Your task to perform on an android device: find photos in the google photos app Image 0: 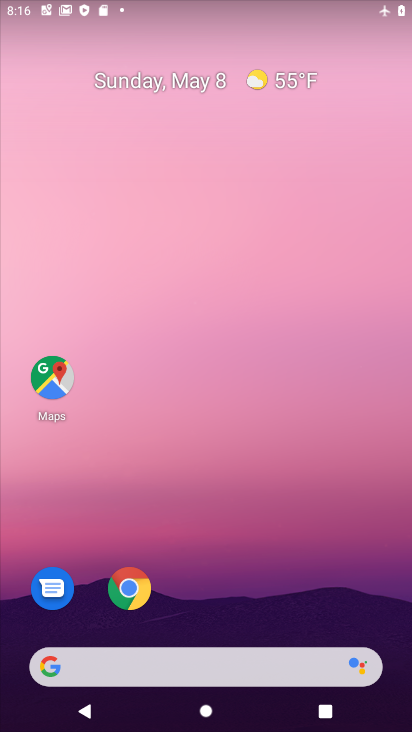
Step 0: drag from (293, 617) to (248, 34)
Your task to perform on an android device: find photos in the google photos app Image 1: 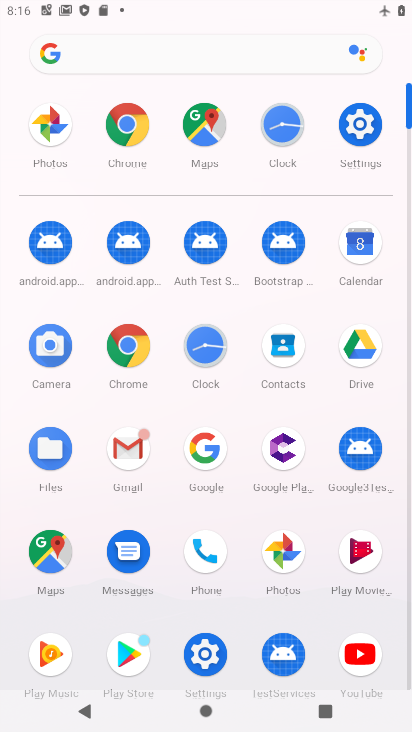
Step 1: click (288, 558)
Your task to perform on an android device: find photos in the google photos app Image 2: 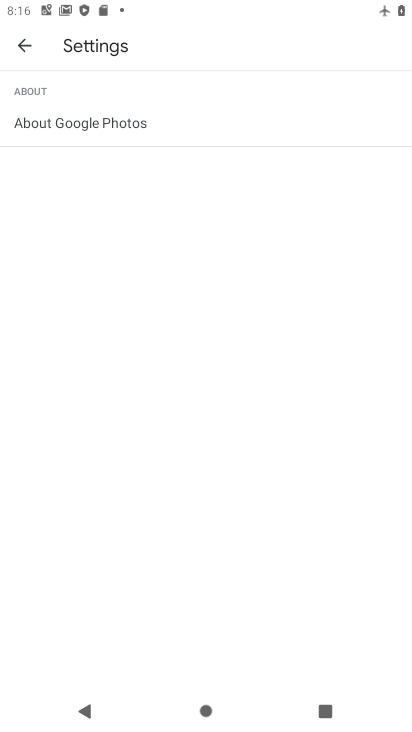
Step 2: press back button
Your task to perform on an android device: find photos in the google photos app Image 3: 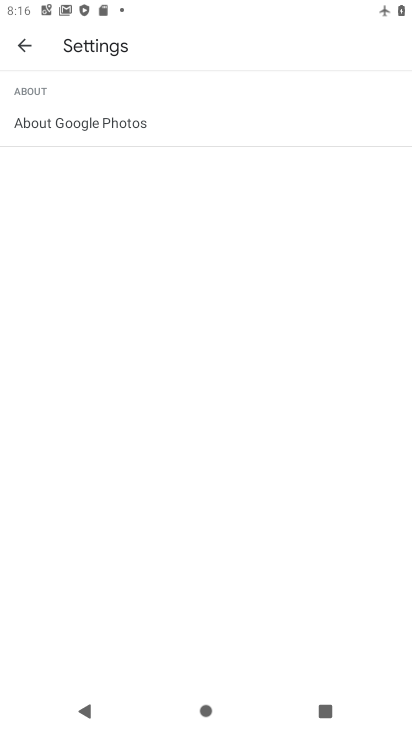
Step 3: press back button
Your task to perform on an android device: find photos in the google photos app Image 4: 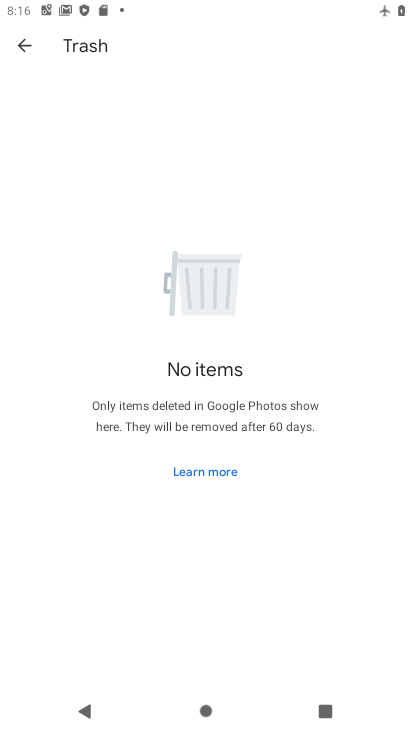
Step 4: press back button
Your task to perform on an android device: find photos in the google photos app Image 5: 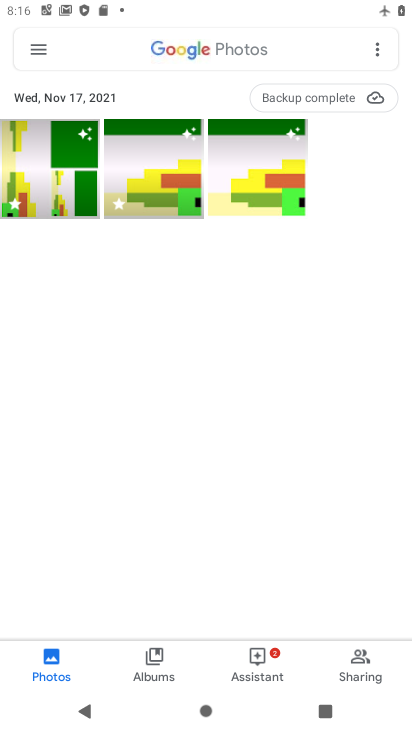
Step 5: click (33, 53)
Your task to perform on an android device: find photos in the google photos app Image 6: 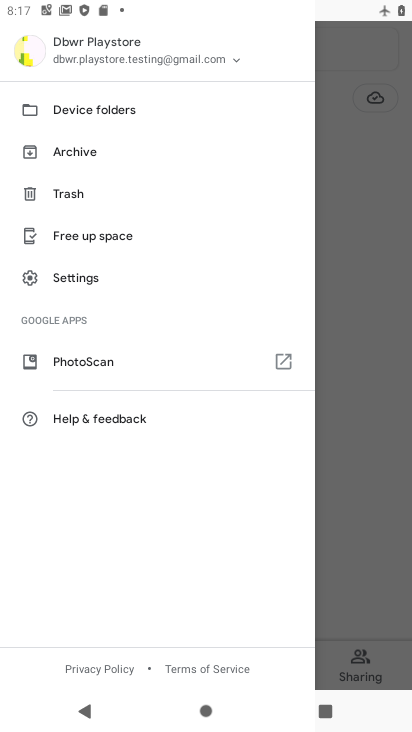
Step 6: task complete